Your task to perform on an android device: turn notification dots on Image 0: 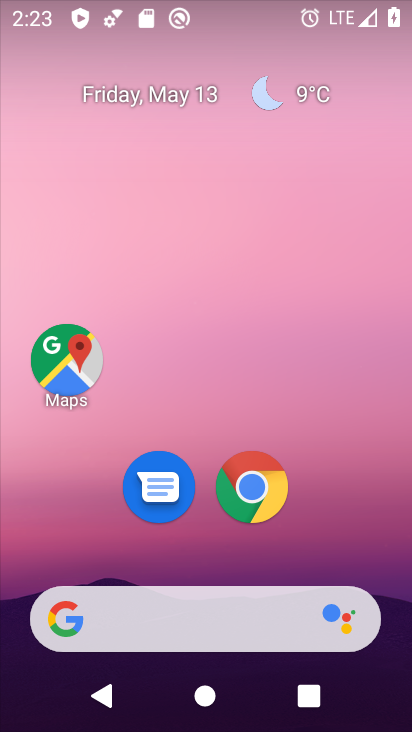
Step 0: drag from (190, 171) to (193, 73)
Your task to perform on an android device: turn notification dots on Image 1: 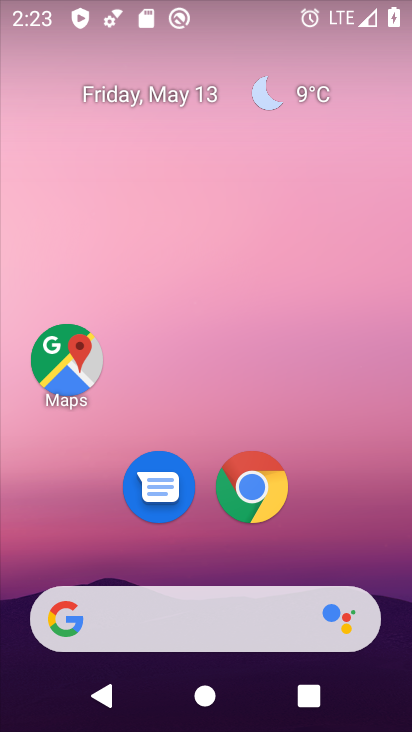
Step 1: drag from (211, 545) to (226, 95)
Your task to perform on an android device: turn notification dots on Image 2: 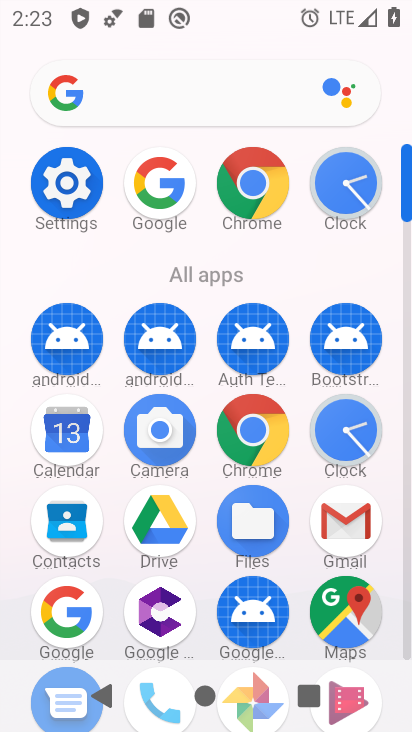
Step 2: click (65, 186)
Your task to perform on an android device: turn notification dots on Image 3: 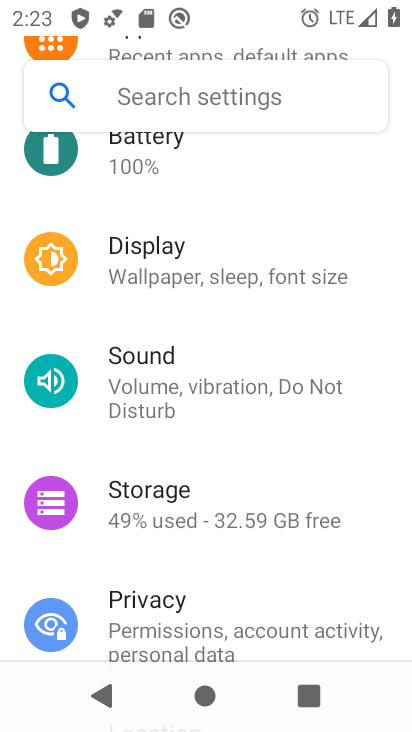
Step 3: drag from (232, 505) to (234, 677)
Your task to perform on an android device: turn notification dots on Image 4: 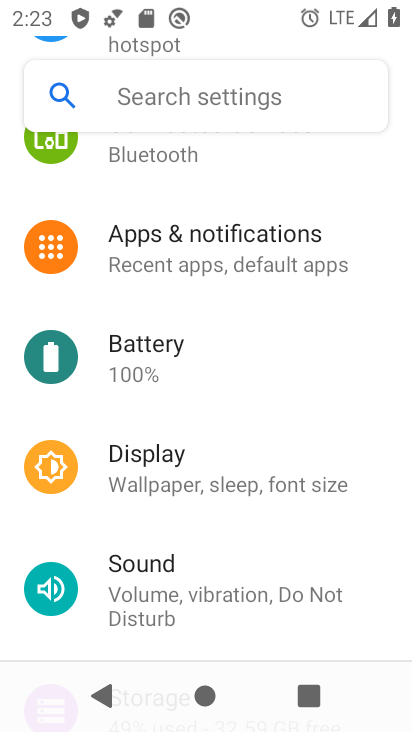
Step 4: click (186, 256)
Your task to perform on an android device: turn notification dots on Image 5: 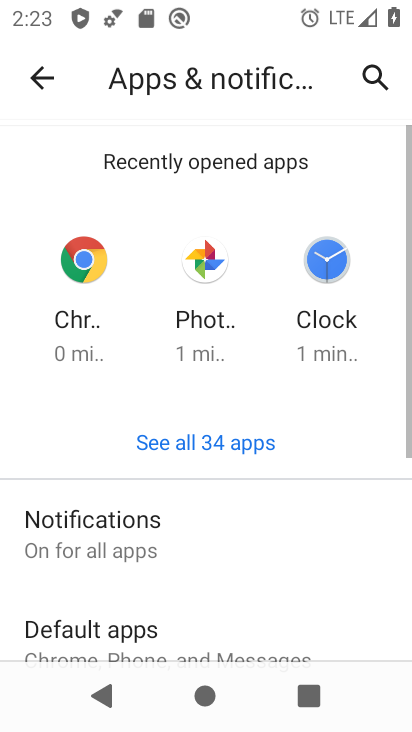
Step 5: click (139, 531)
Your task to perform on an android device: turn notification dots on Image 6: 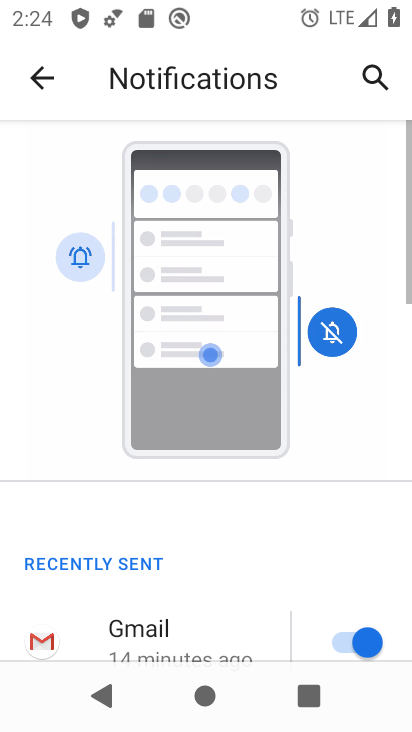
Step 6: drag from (254, 565) to (282, 80)
Your task to perform on an android device: turn notification dots on Image 7: 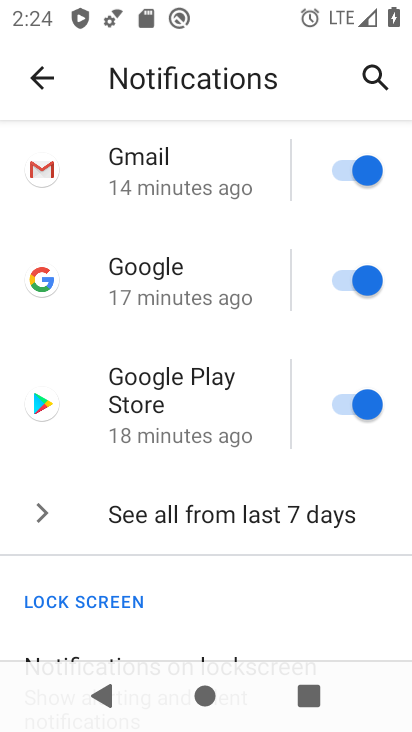
Step 7: drag from (252, 623) to (260, 83)
Your task to perform on an android device: turn notification dots on Image 8: 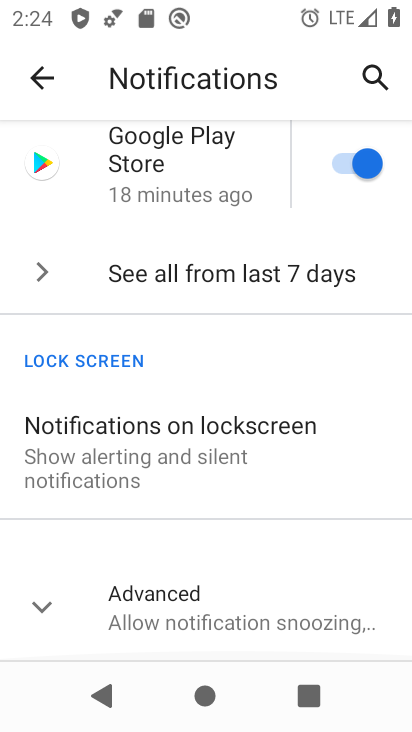
Step 8: click (131, 609)
Your task to perform on an android device: turn notification dots on Image 9: 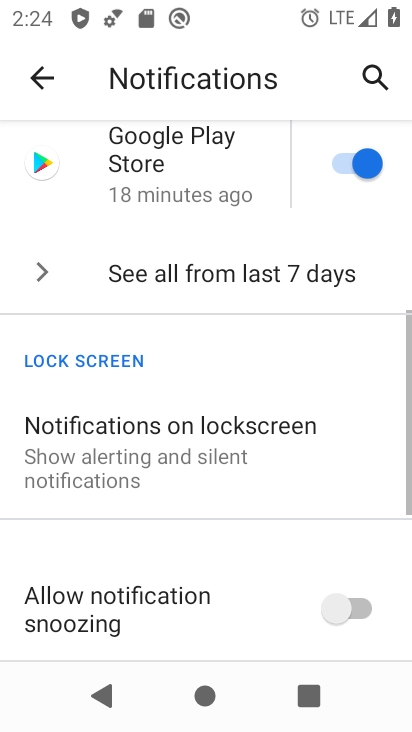
Step 9: task complete